Your task to perform on an android device: change alarm snooze length Image 0: 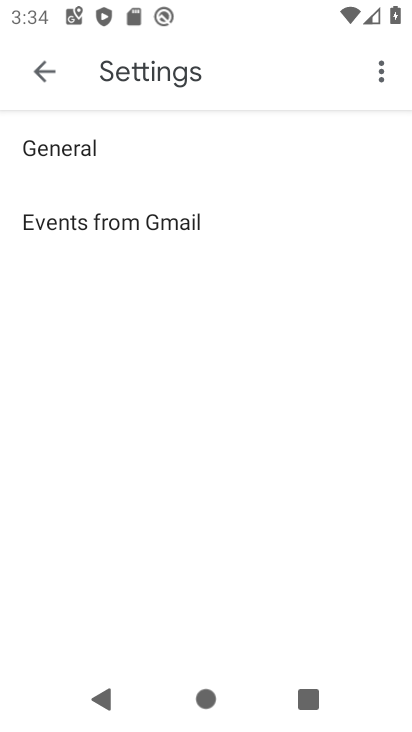
Step 0: press home button
Your task to perform on an android device: change alarm snooze length Image 1: 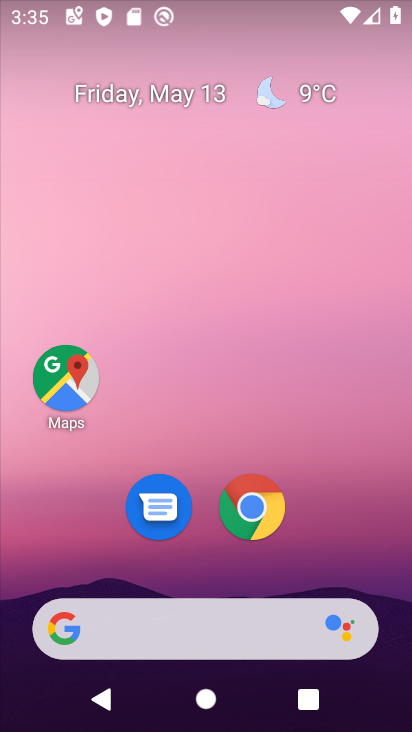
Step 1: drag from (389, 548) to (324, 15)
Your task to perform on an android device: change alarm snooze length Image 2: 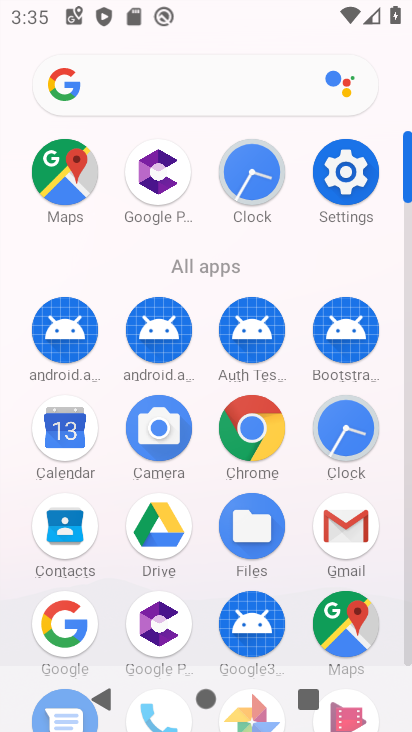
Step 2: click (258, 181)
Your task to perform on an android device: change alarm snooze length Image 3: 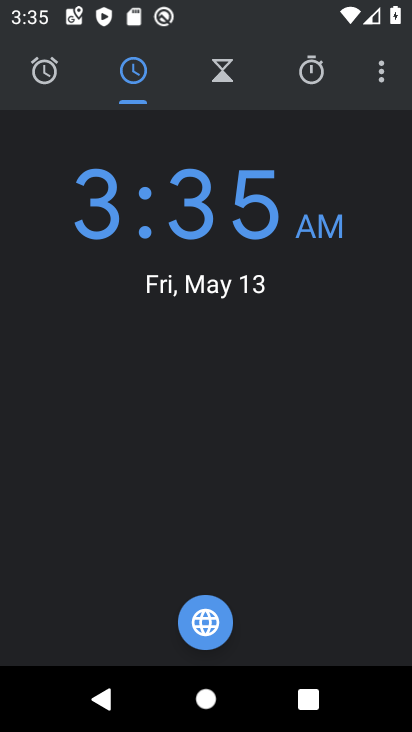
Step 3: click (375, 87)
Your task to perform on an android device: change alarm snooze length Image 4: 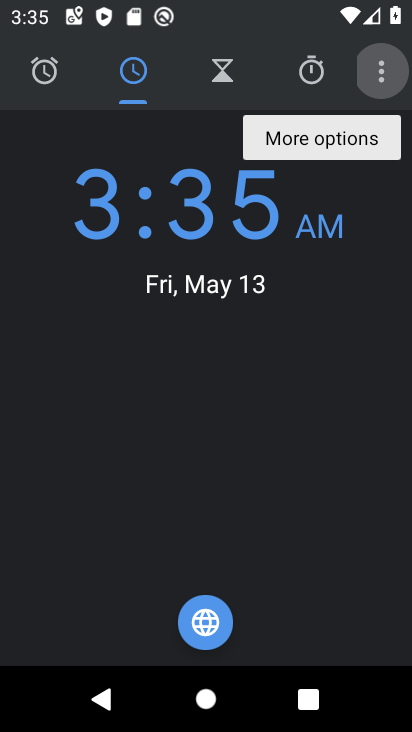
Step 4: click (375, 87)
Your task to perform on an android device: change alarm snooze length Image 5: 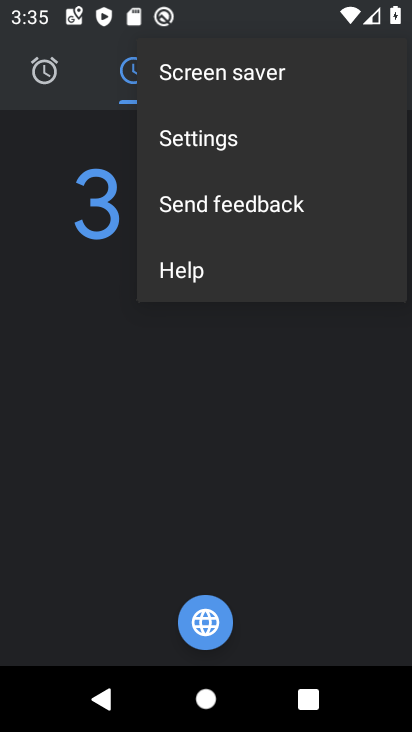
Step 5: click (214, 141)
Your task to perform on an android device: change alarm snooze length Image 6: 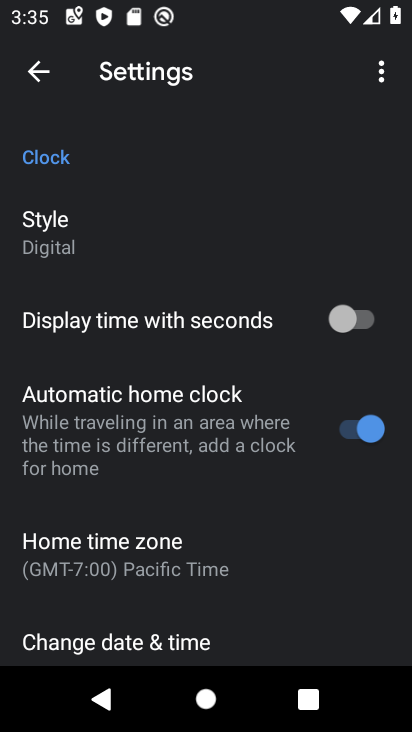
Step 6: drag from (169, 568) to (246, 132)
Your task to perform on an android device: change alarm snooze length Image 7: 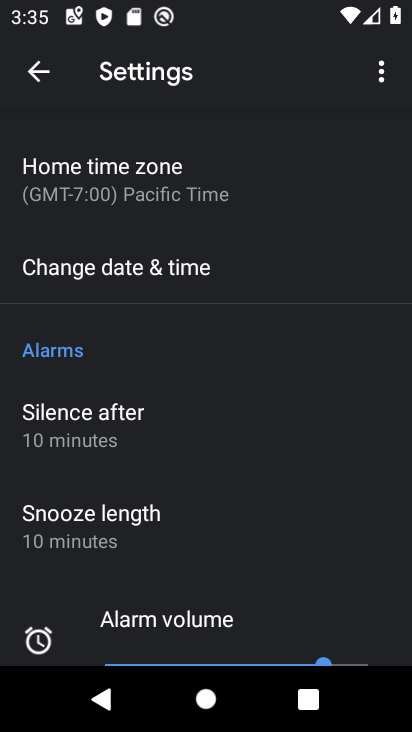
Step 7: click (91, 519)
Your task to perform on an android device: change alarm snooze length Image 8: 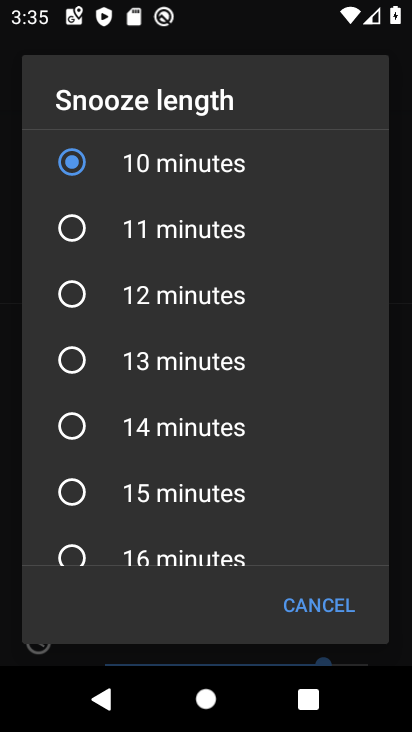
Step 8: click (73, 436)
Your task to perform on an android device: change alarm snooze length Image 9: 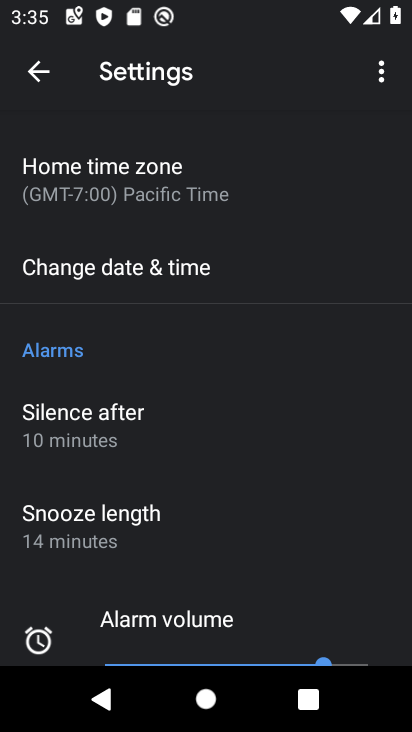
Step 9: task complete